Your task to perform on an android device: find photos in the google photos app Image 0: 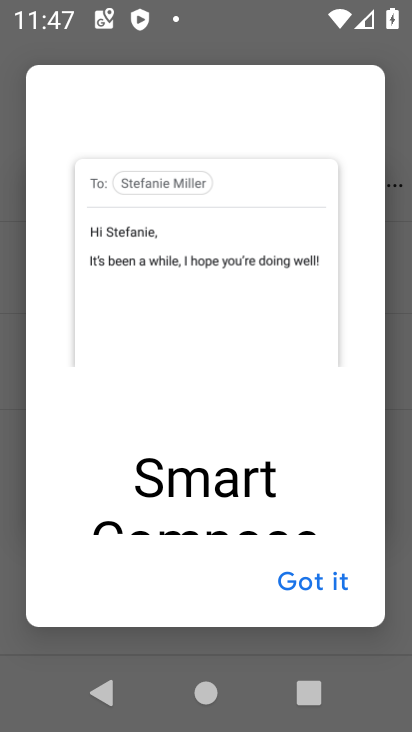
Step 0: press home button
Your task to perform on an android device: find photos in the google photos app Image 1: 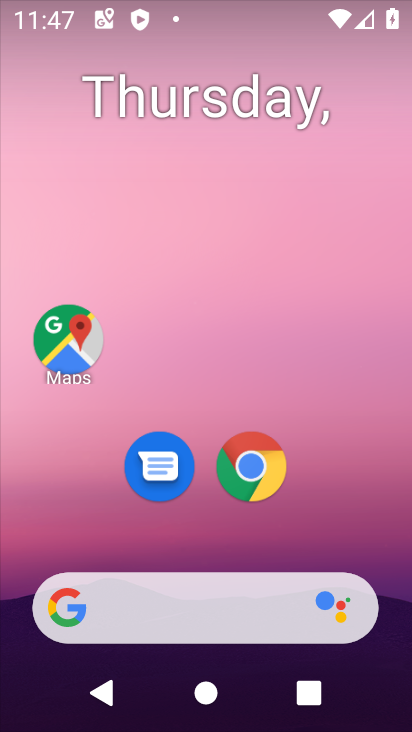
Step 1: drag from (390, 624) to (299, 24)
Your task to perform on an android device: find photos in the google photos app Image 2: 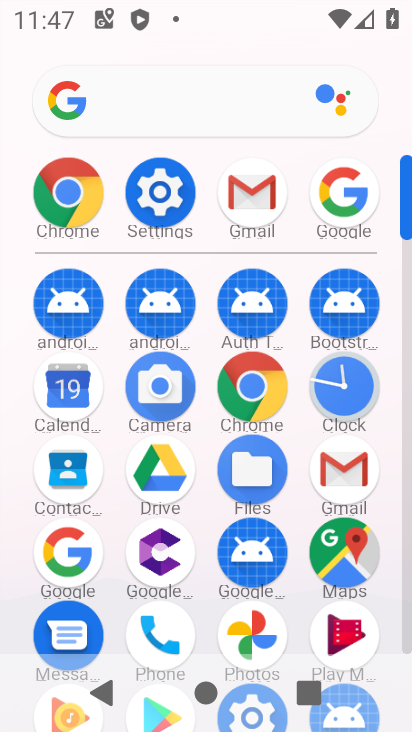
Step 2: click (242, 618)
Your task to perform on an android device: find photos in the google photos app Image 3: 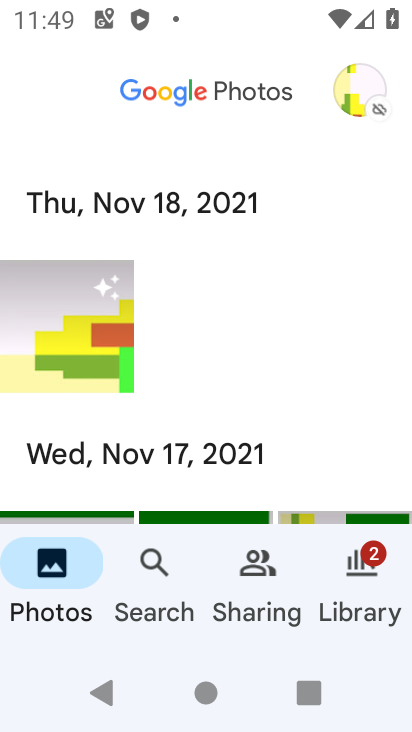
Step 3: task complete